Your task to perform on an android device: open device folders in google photos Image 0: 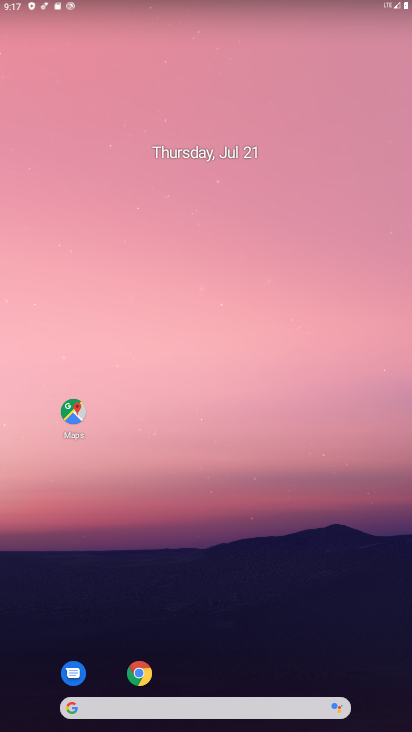
Step 0: drag from (196, 615) to (198, 194)
Your task to perform on an android device: open device folders in google photos Image 1: 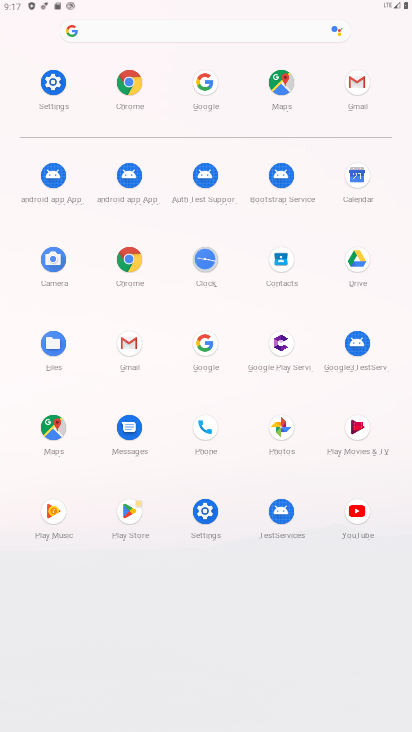
Step 1: click (281, 417)
Your task to perform on an android device: open device folders in google photos Image 2: 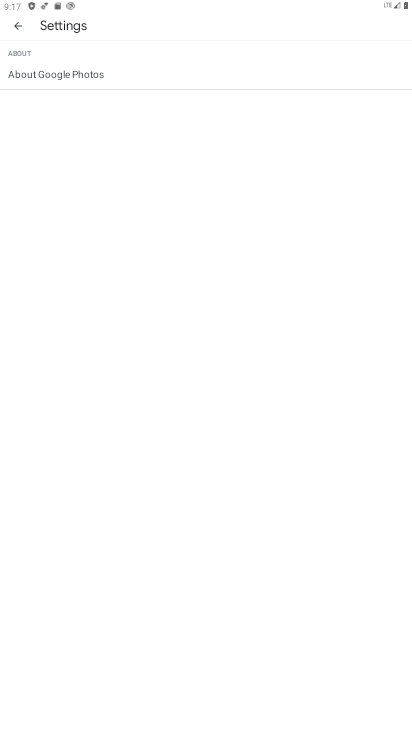
Step 2: click (6, 25)
Your task to perform on an android device: open device folders in google photos Image 3: 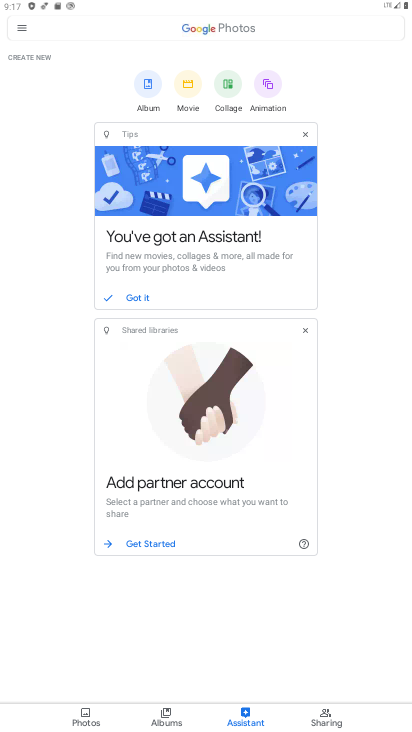
Step 3: click (29, 30)
Your task to perform on an android device: open device folders in google photos Image 4: 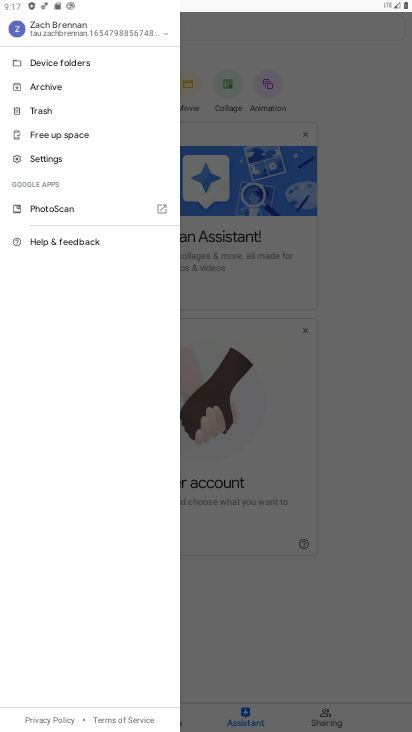
Step 4: click (247, 597)
Your task to perform on an android device: open device folders in google photos Image 5: 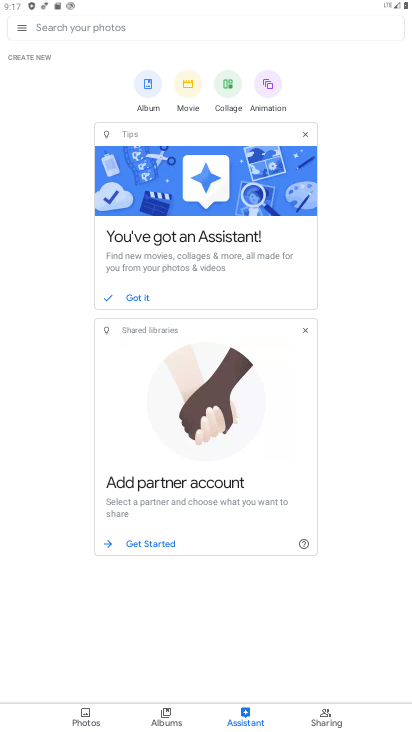
Step 5: click (23, 32)
Your task to perform on an android device: open device folders in google photos Image 6: 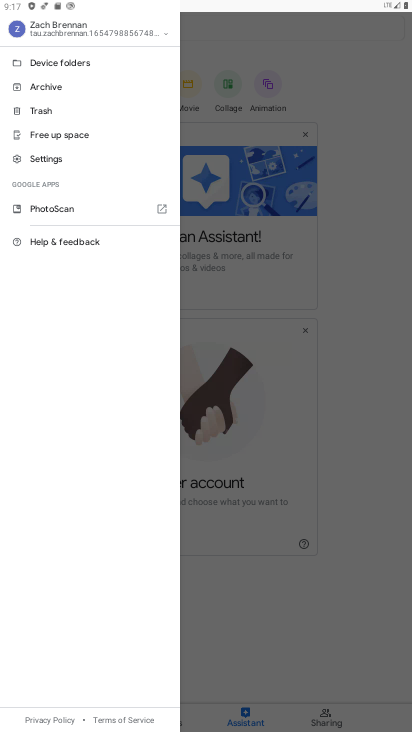
Step 6: click (73, 63)
Your task to perform on an android device: open device folders in google photos Image 7: 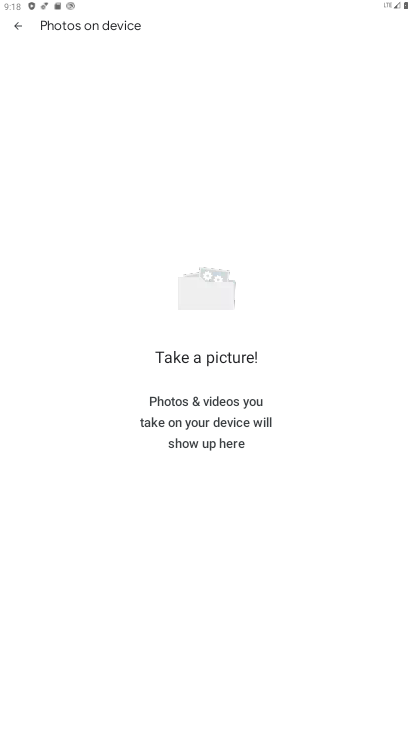
Step 7: task complete